Your task to perform on an android device: open a new tab in the chrome app Image 0: 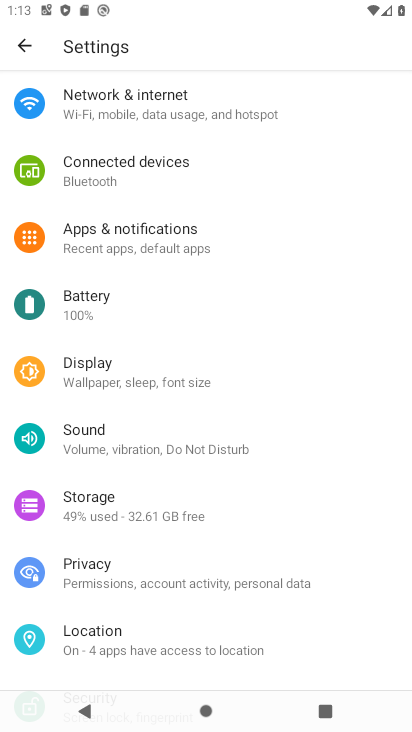
Step 0: drag from (222, 602) to (304, 106)
Your task to perform on an android device: open a new tab in the chrome app Image 1: 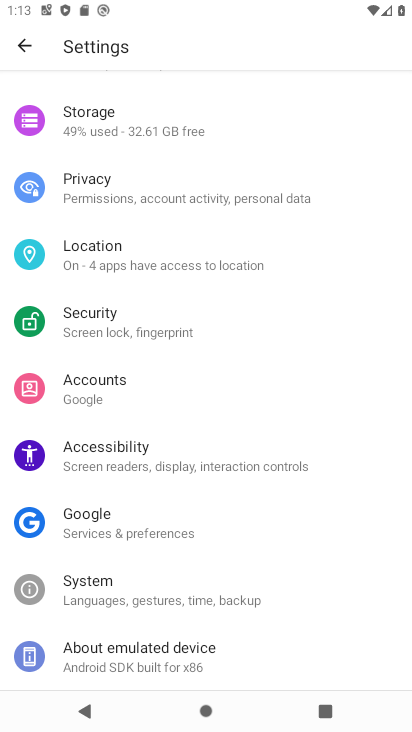
Step 1: press home button
Your task to perform on an android device: open a new tab in the chrome app Image 2: 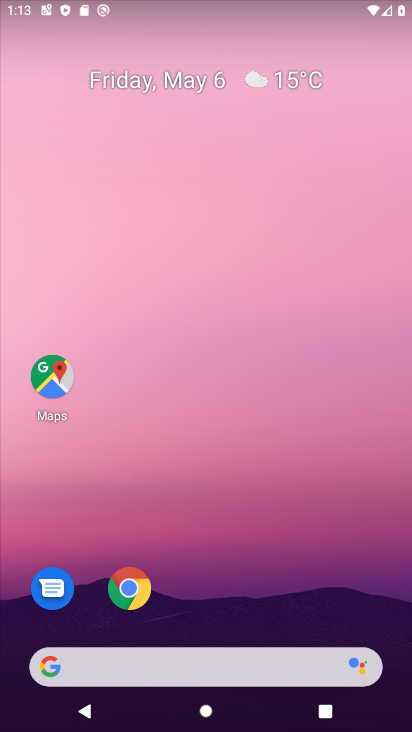
Step 2: click (123, 599)
Your task to perform on an android device: open a new tab in the chrome app Image 3: 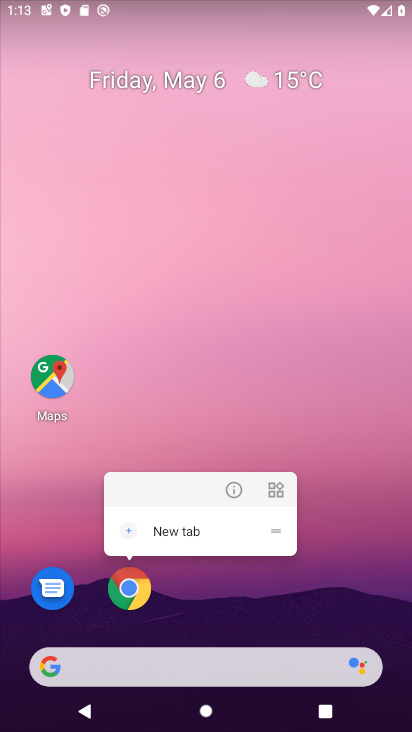
Step 3: click (224, 487)
Your task to perform on an android device: open a new tab in the chrome app Image 4: 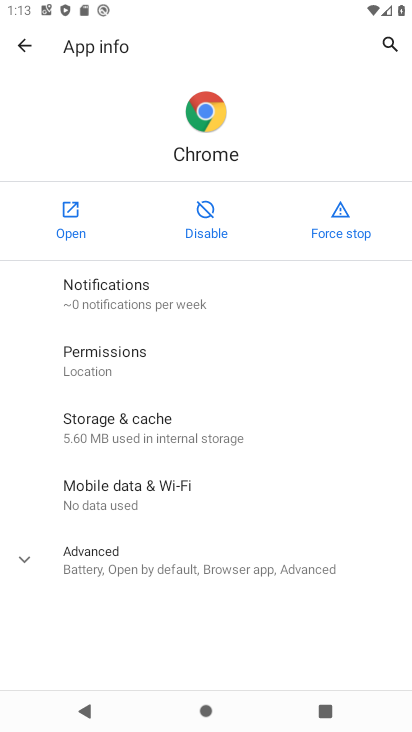
Step 4: click (51, 199)
Your task to perform on an android device: open a new tab in the chrome app Image 5: 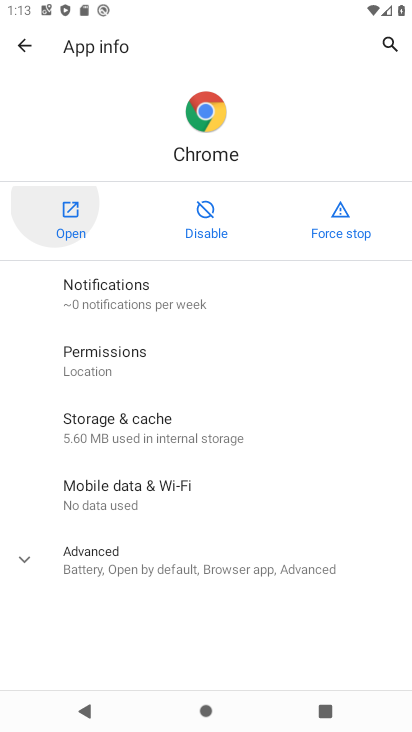
Step 5: click (72, 206)
Your task to perform on an android device: open a new tab in the chrome app Image 6: 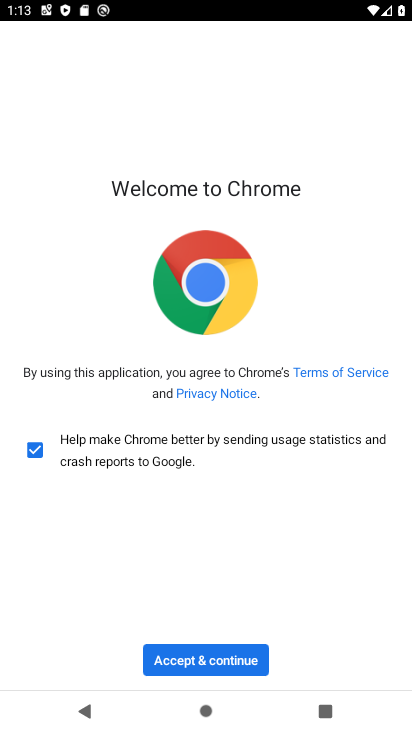
Step 6: click (188, 662)
Your task to perform on an android device: open a new tab in the chrome app Image 7: 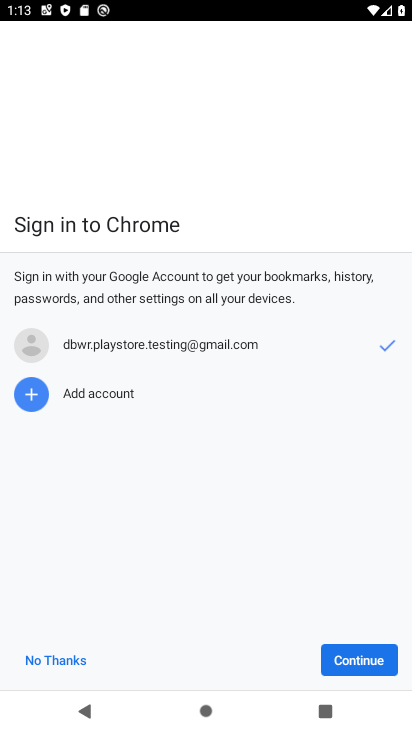
Step 7: click (54, 658)
Your task to perform on an android device: open a new tab in the chrome app Image 8: 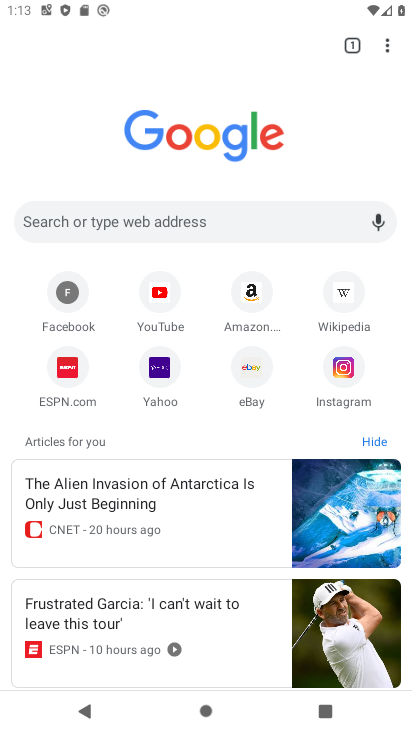
Step 8: click (352, 55)
Your task to perform on an android device: open a new tab in the chrome app Image 9: 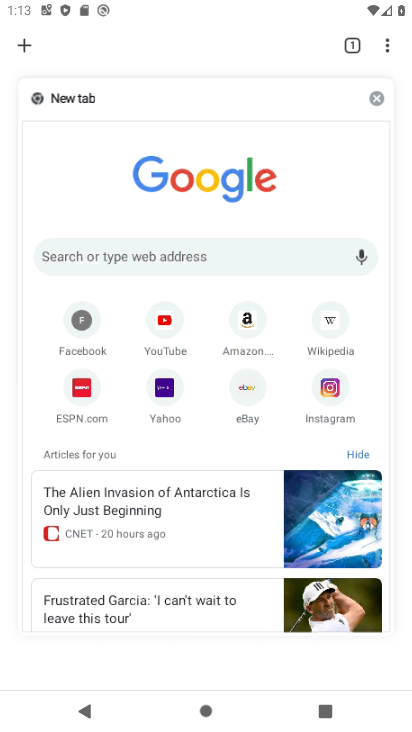
Step 9: click (10, 35)
Your task to perform on an android device: open a new tab in the chrome app Image 10: 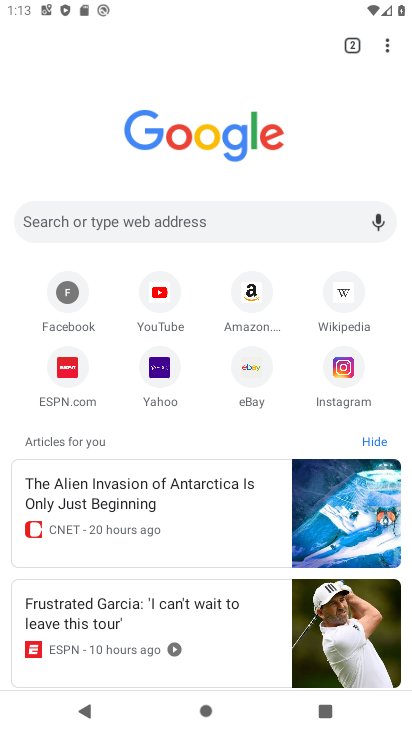
Step 10: task complete